Your task to perform on an android device: What is the recent news? Image 0: 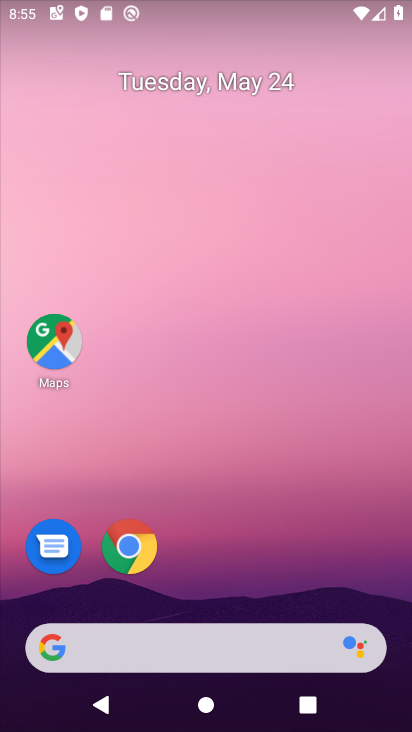
Step 0: drag from (194, 528) to (247, 151)
Your task to perform on an android device: What is the recent news? Image 1: 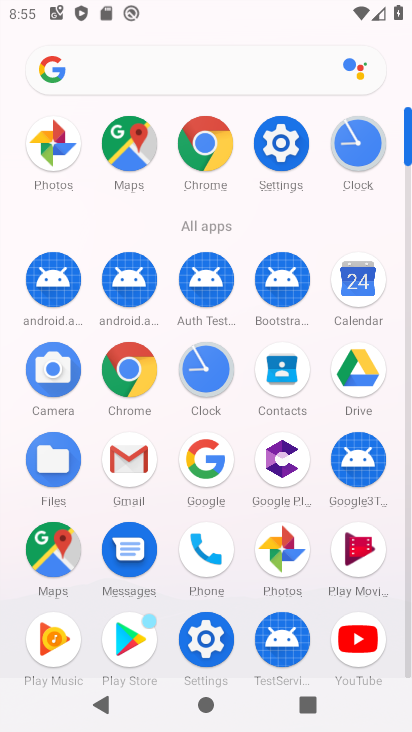
Step 1: click (207, 461)
Your task to perform on an android device: What is the recent news? Image 2: 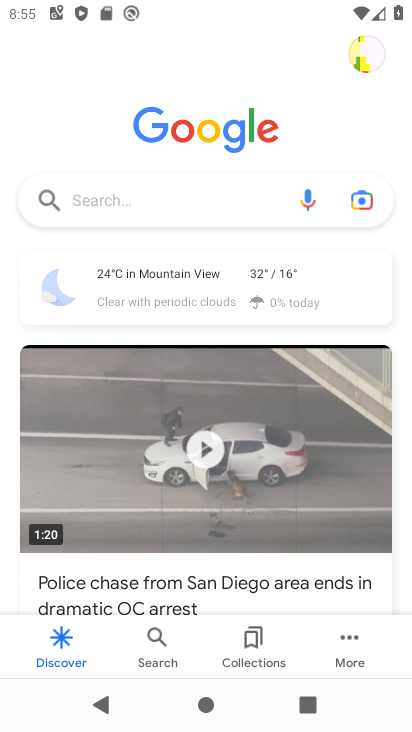
Step 2: click (118, 205)
Your task to perform on an android device: What is the recent news? Image 3: 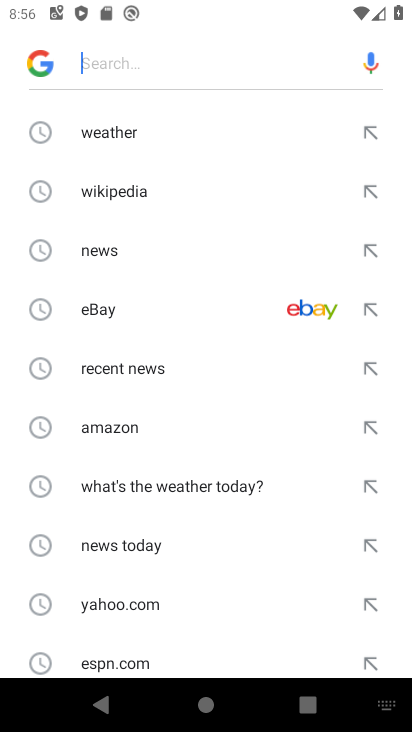
Step 3: click (118, 373)
Your task to perform on an android device: What is the recent news? Image 4: 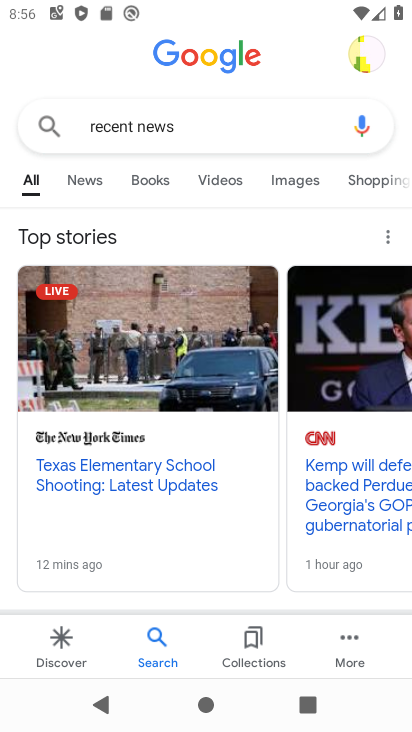
Step 4: task complete